Your task to perform on an android device: check battery use Image 0: 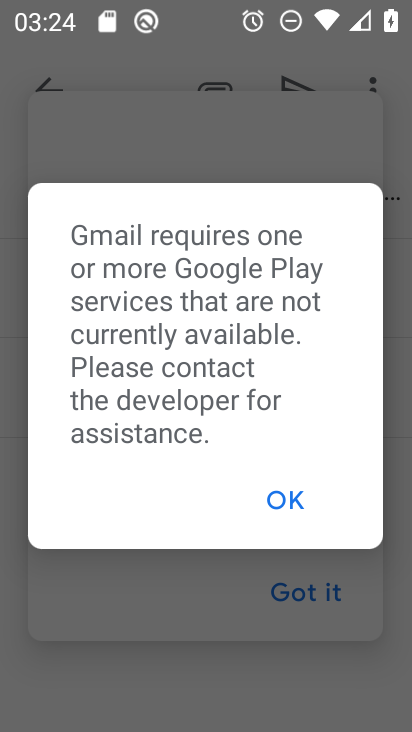
Step 0: press home button
Your task to perform on an android device: check battery use Image 1: 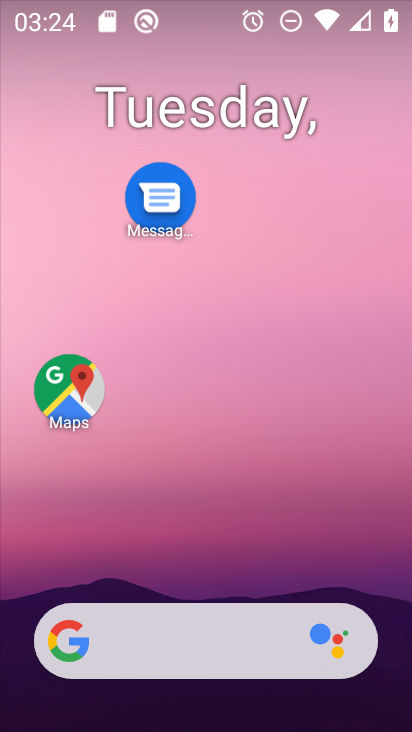
Step 1: drag from (197, 584) to (241, 184)
Your task to perform on an android device: check battery use Image 2: 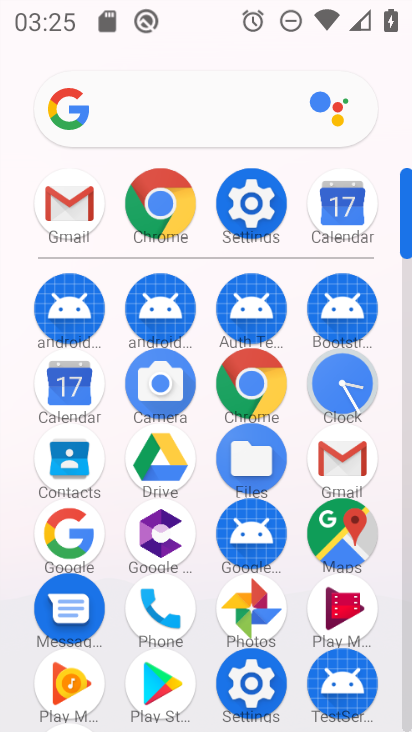
Step 2: click (245, 187)
Your task to perform on an android device: check battery use Image 3: 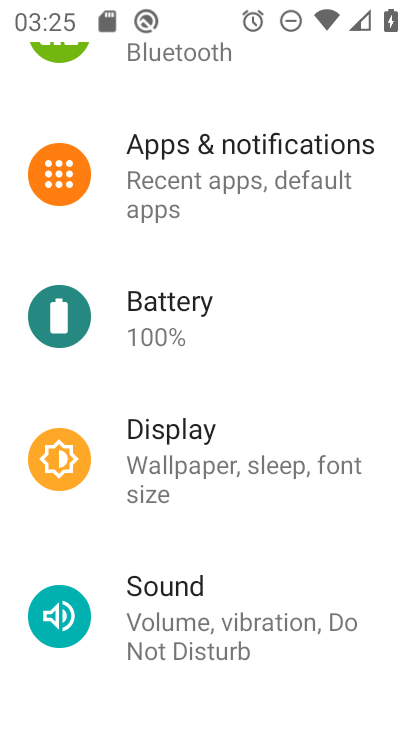
Step 3: click (183, 322)
Your task to perform on an android device: check battery use Image 4: 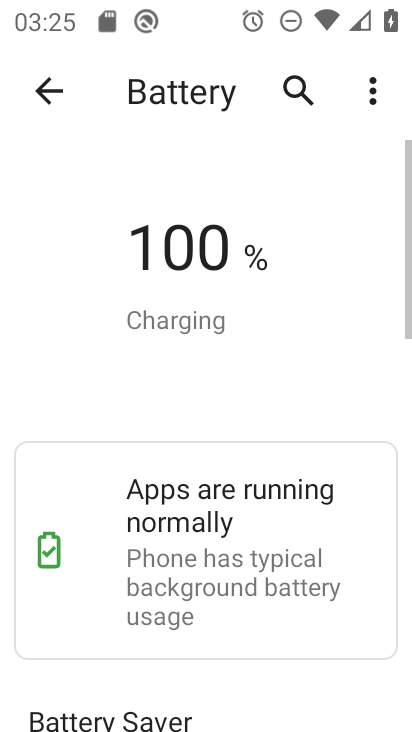
Step 4: click (378, 102)
Your task to perform on an android device: check battery use Image 5: 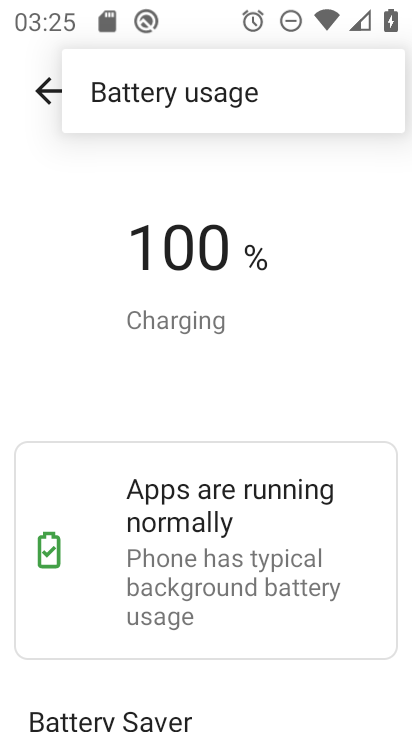
Step 5: click (218, 106)
Your task to perform on an android device: check battery use Image 6: 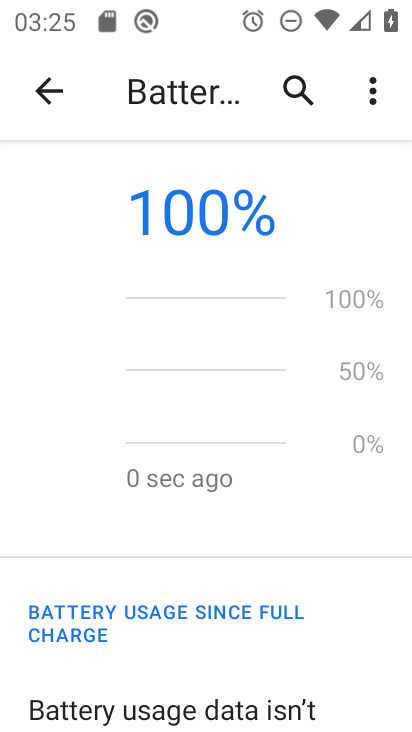
Step 6: task complete